Your task to perform on an android device: When is my next appointment? Image 0: 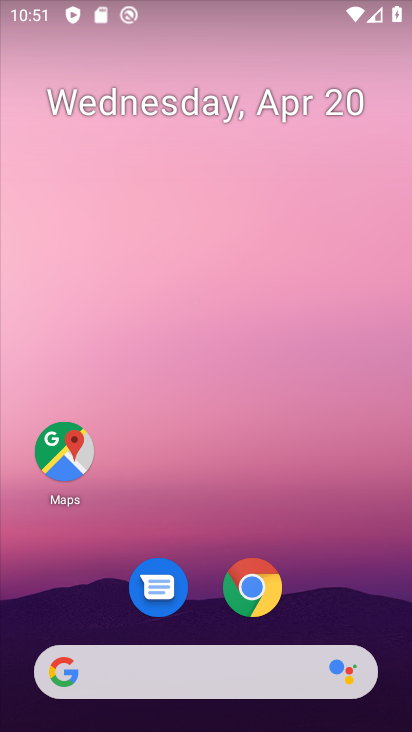
Step 0: drag from (320, 516) to (269, 1)
Your task to perform on an android device: When is my next appointment? Image 1: 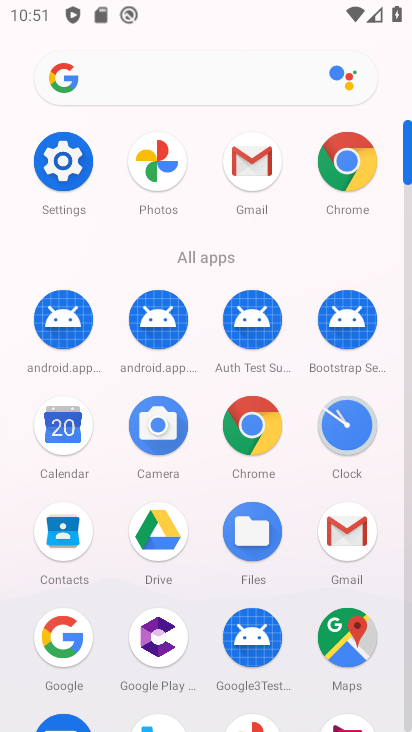
Step 1: click (64, 433)
Your task to perform on an android device: When is my next appointment? Image 2: 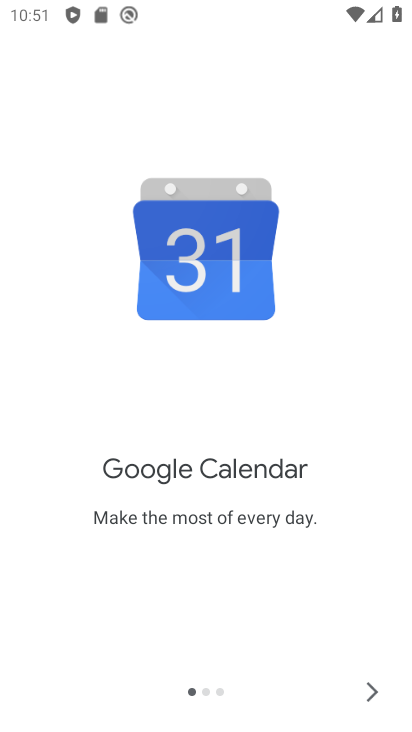
Step 2: click (367, 680)
Your task to perform on an android device: When is my next appointment? Image 3: 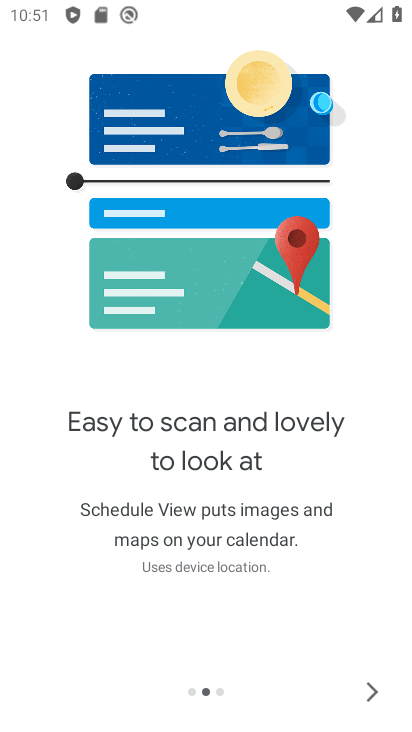
Step 3: click (366, 688)
Your task to perform on an android device: When is my next appointment? Image 4: 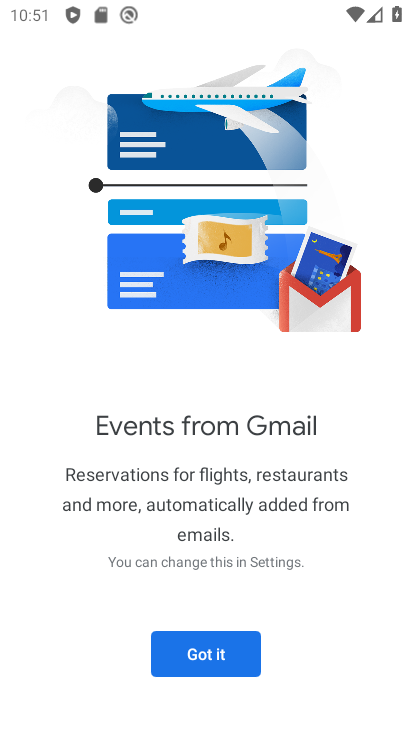
Step 4: click (217, 656)
Your task to perform on an android device: When is my next appointment? Image 5: 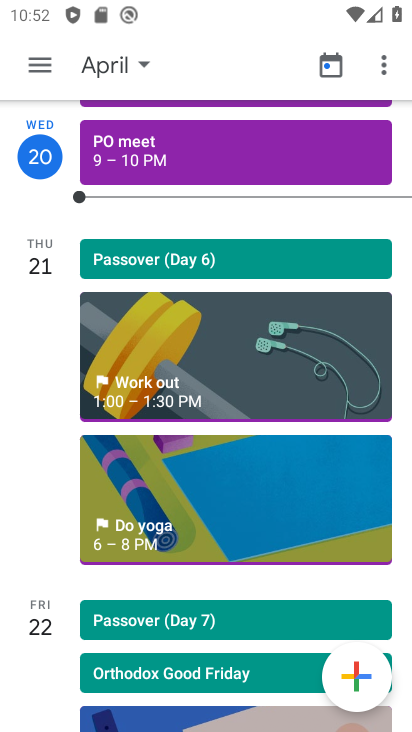
Step 5: click (37, 69)
Your task to perform on an android device: When is my next appointment? Image 6: 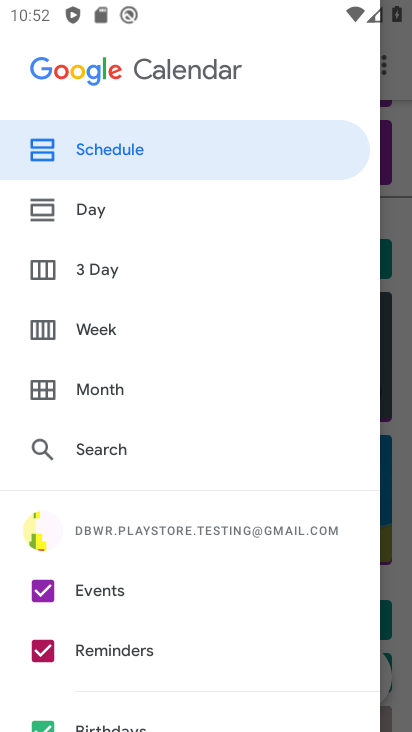
Step 6: drag from (221, 658) to (271, 310)
Your task to perform on an android device: When is my next appointment? Image 7: 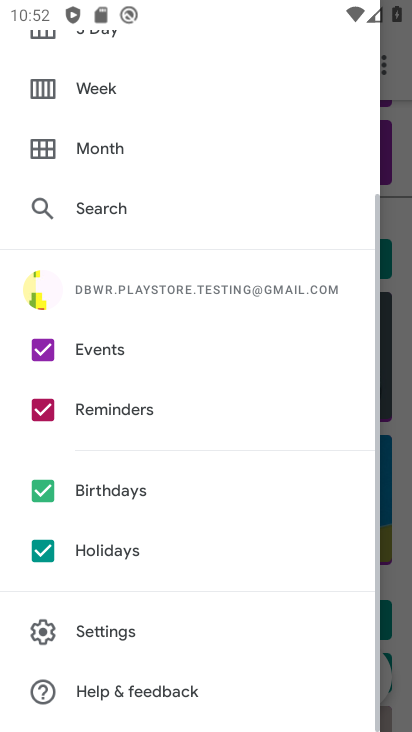
Step 7: click (41, 331)
Your task to perform on an android device: When is my next appointment? Image 8: 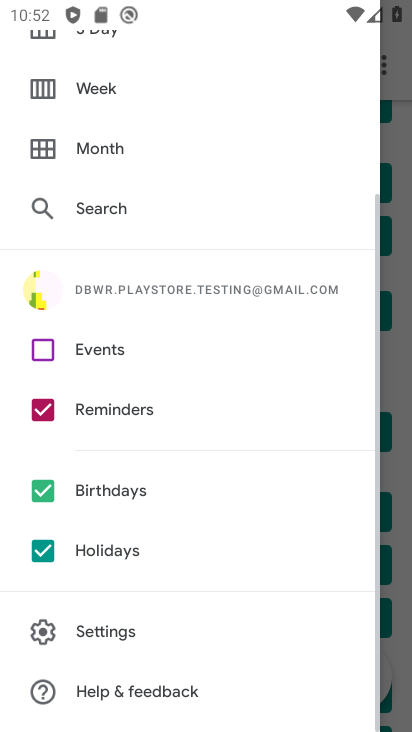
Step 8: click (52, 486)
Your task to perform on an android device: When is my next appointment? Image 9: 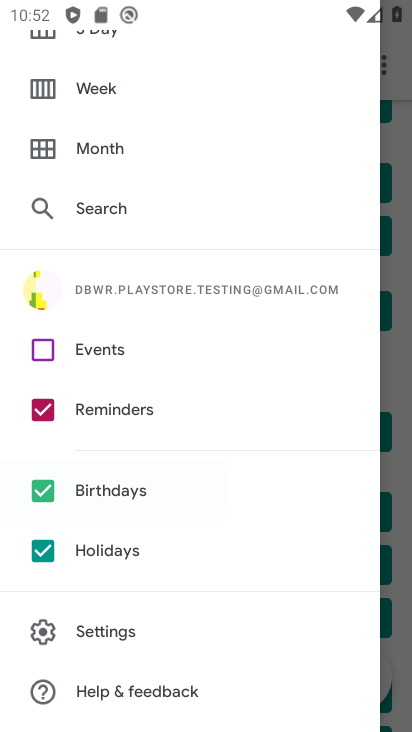
Step 9: click (46, 553)
Your task to perform on an android device: When is my next appointment? Image 10: 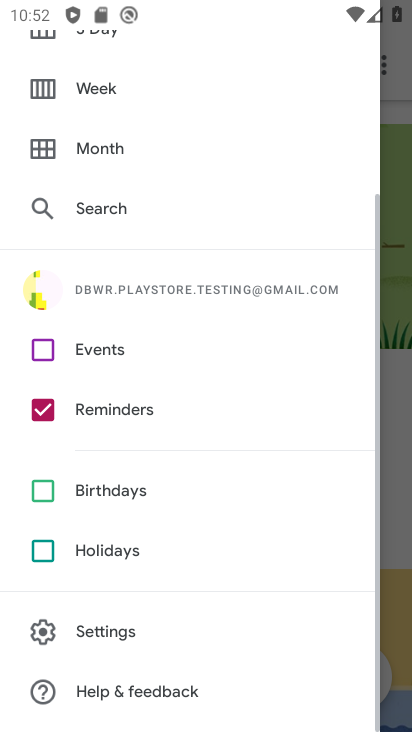
Step 10: click (45, 350)
Your task to perform on an android device: When is my next appointment? Image 11: 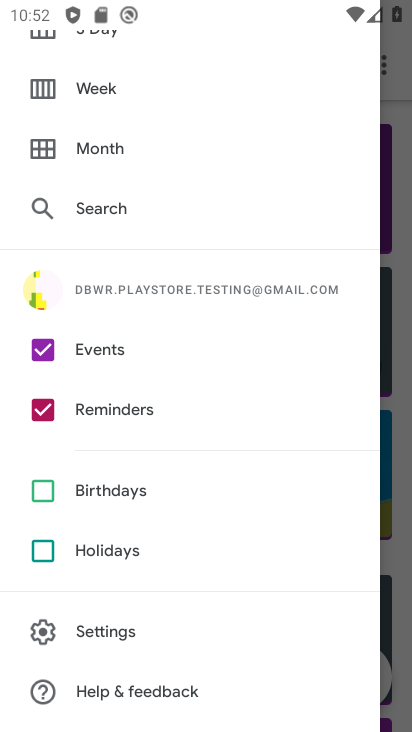
Step 11: drag from (396, 490) to (45, 487)
Your task to perform on an android device: When is my next appointment? Image 12: 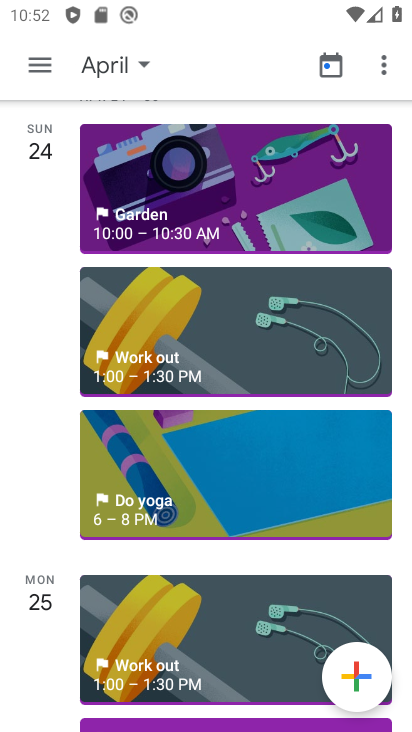
Step 12: drag from (240, 526) to (261, 181)
Your task to perform on an android device: When is my next appointment? Image 13: 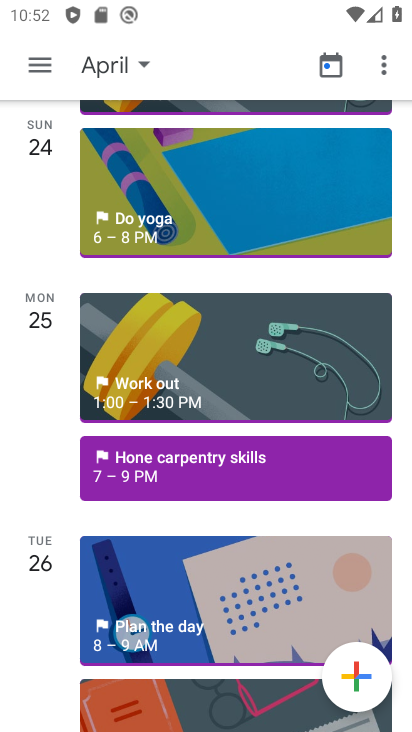
Step 13: click (39, 63)
Your task to perform on an android device: When is my next appointment? Image 14: 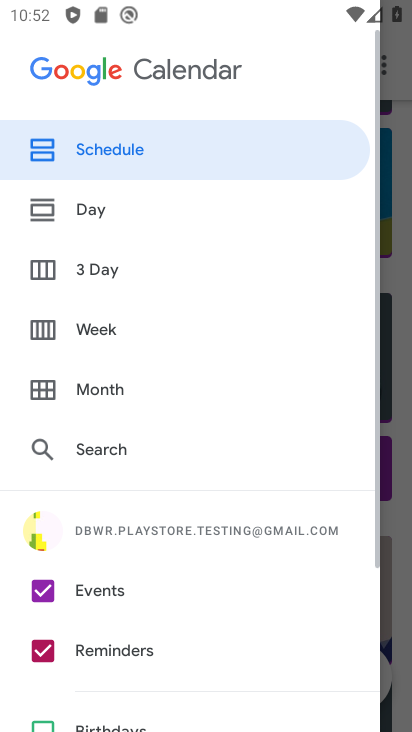
Step 14: click (79, 131)
Your task to perform on an android device: When is my next appointment? Image 15: 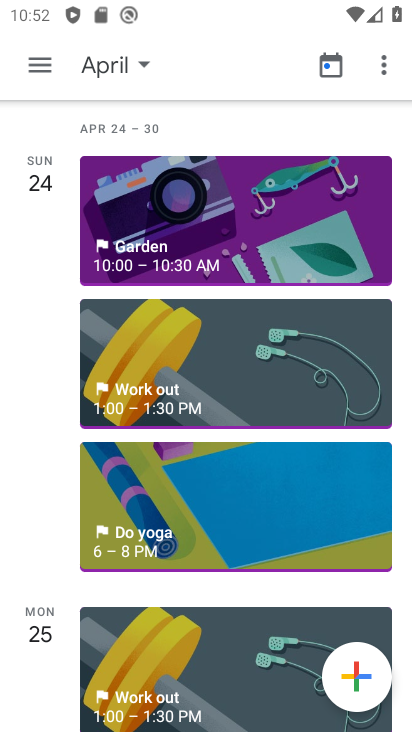
Step 15: task complete